Your task to perform on an android device: open the mobile data screen to see how much data has been used Image 0: 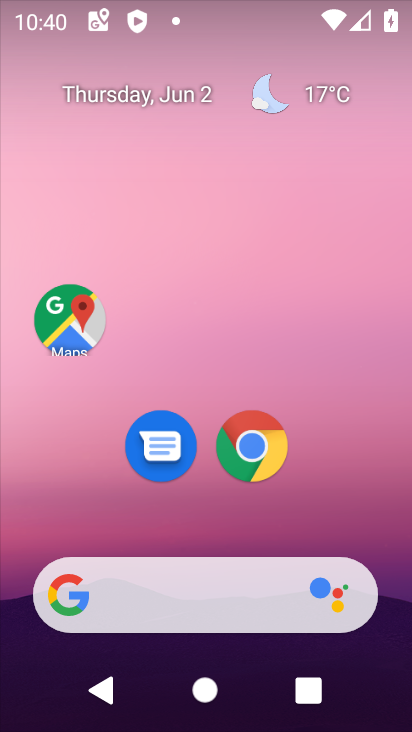
Step 0: drag from (367, 519) to (365, 156)
Your task to perform on an android device: open the mobile data screen to see how much data has been used Image 1: 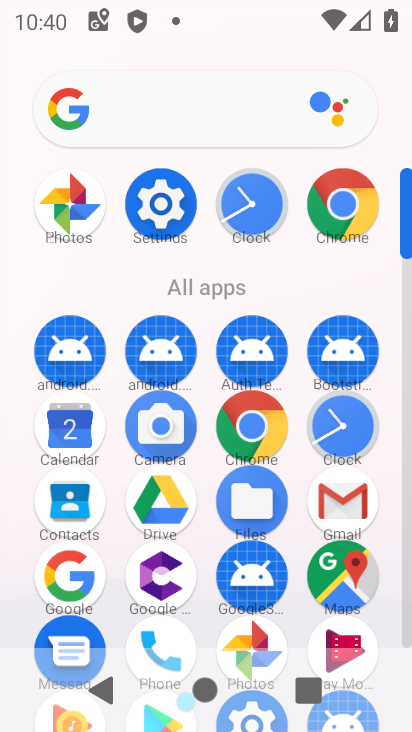
Step 1: click (165, 215)
Your task to perform on an android device: open the mobile data screen to see how much data has been used Image 2: 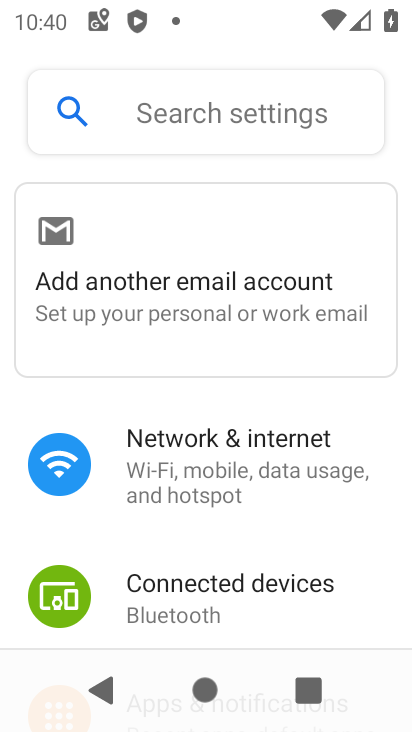
Step 2: click (209, 445)
Your task to perform on an android device: open the mobile data screen to see how much data has been used Image 3: 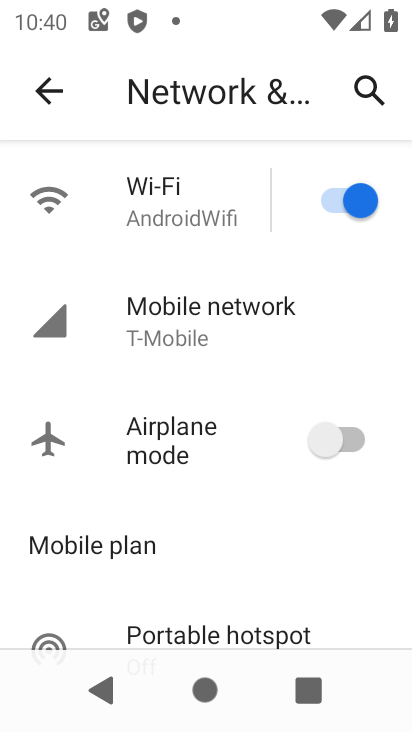
Step 3: click (205, 322)
Your task to perform on an android device: open the mobile data screen to see how much data has been used Image 4: 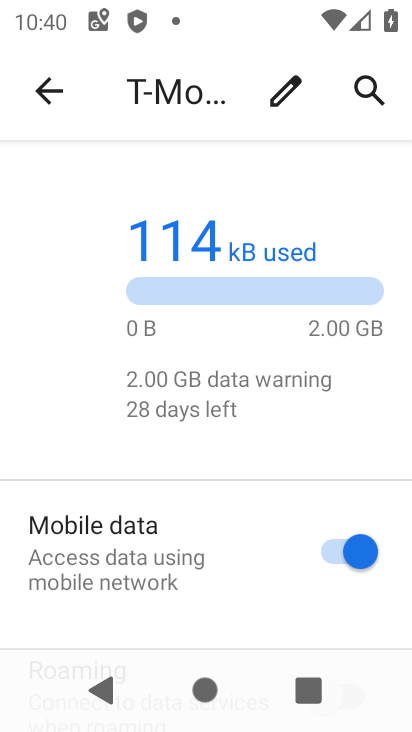
Step 4: drag from (240, 514) to (271, 290)
Your task to perform on an android device: open the mobile data screen to see how much data has been used Image 5: 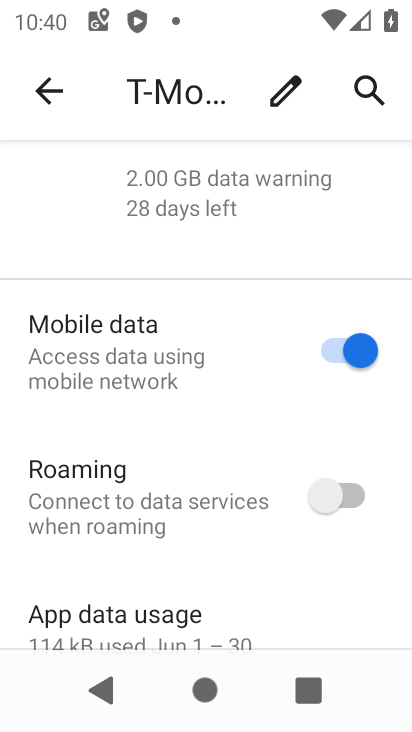
Step 5: drag from (251, 528) to (246, 236)
Your task to perform on an android device: open the mobile data screen to see how much data has been used Image 6: 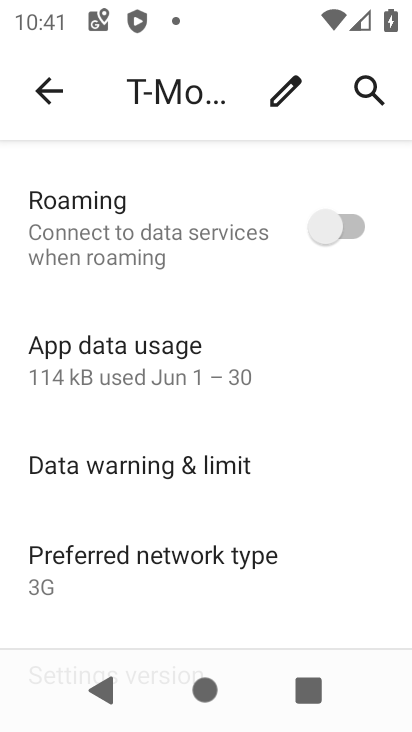
Step 6: click (207, 377)
Your task to perform on an android device: open the mobile data screen to see how much data has been used Image 7: 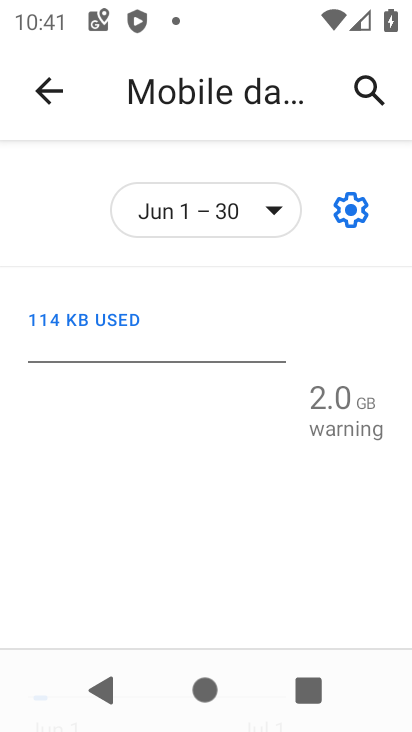
Step 7: task complete